Your task to perform on an android device: open app "Mercado Libre" Image 0: 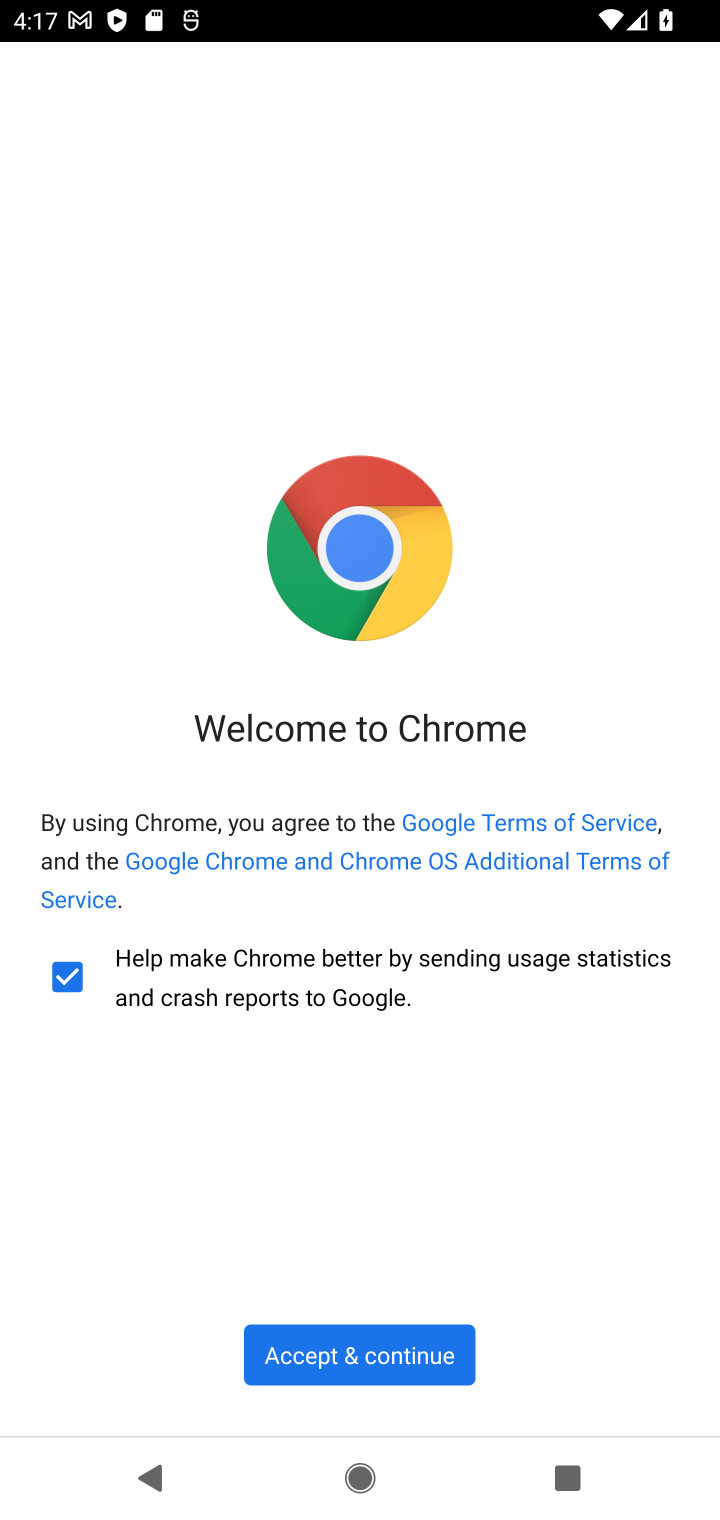
Step 0: press home button
Your task to perform on an android device: open app "Mercado Libre" Image 1: 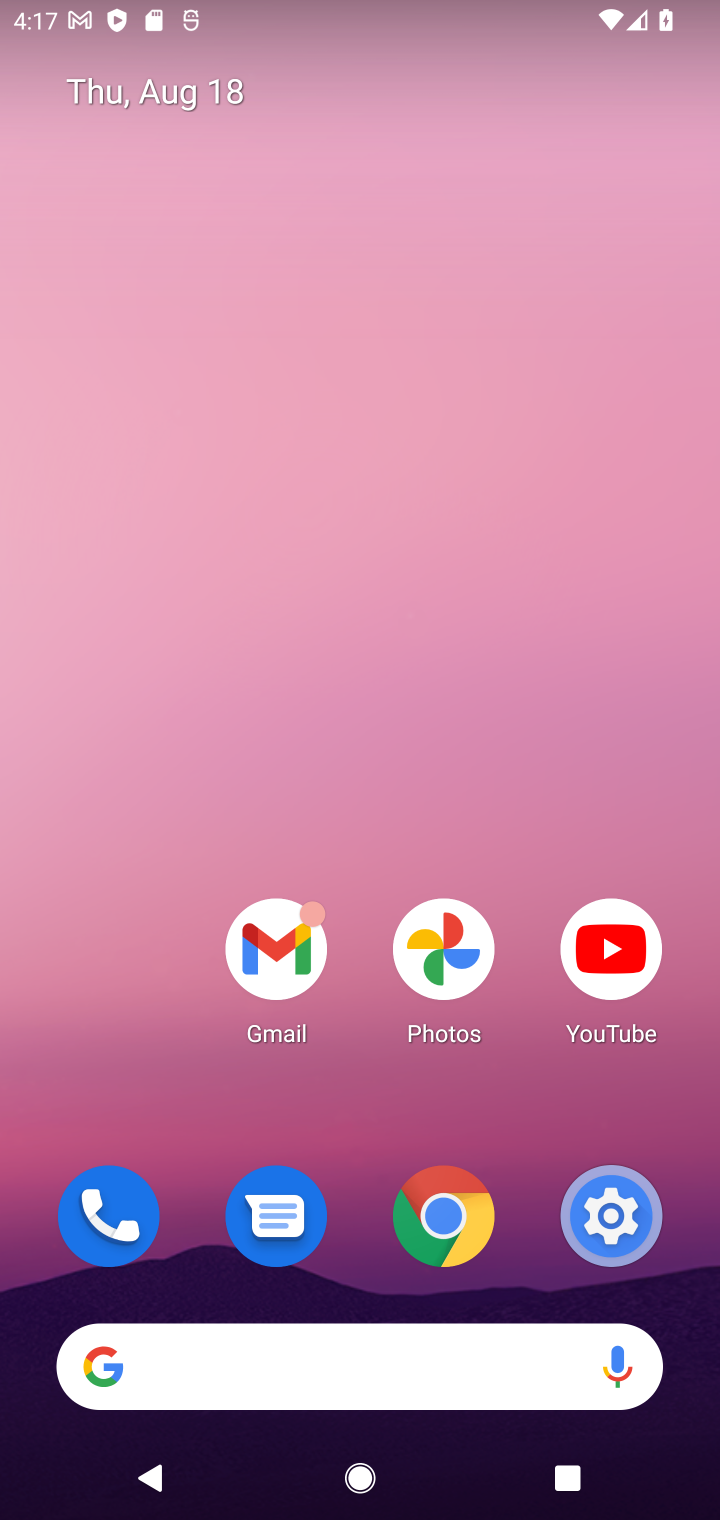
Step 1: drag from (529, 1130) to (488, 161)
Your task to perform on an android device: open app "Mercado Libre" Image 2: 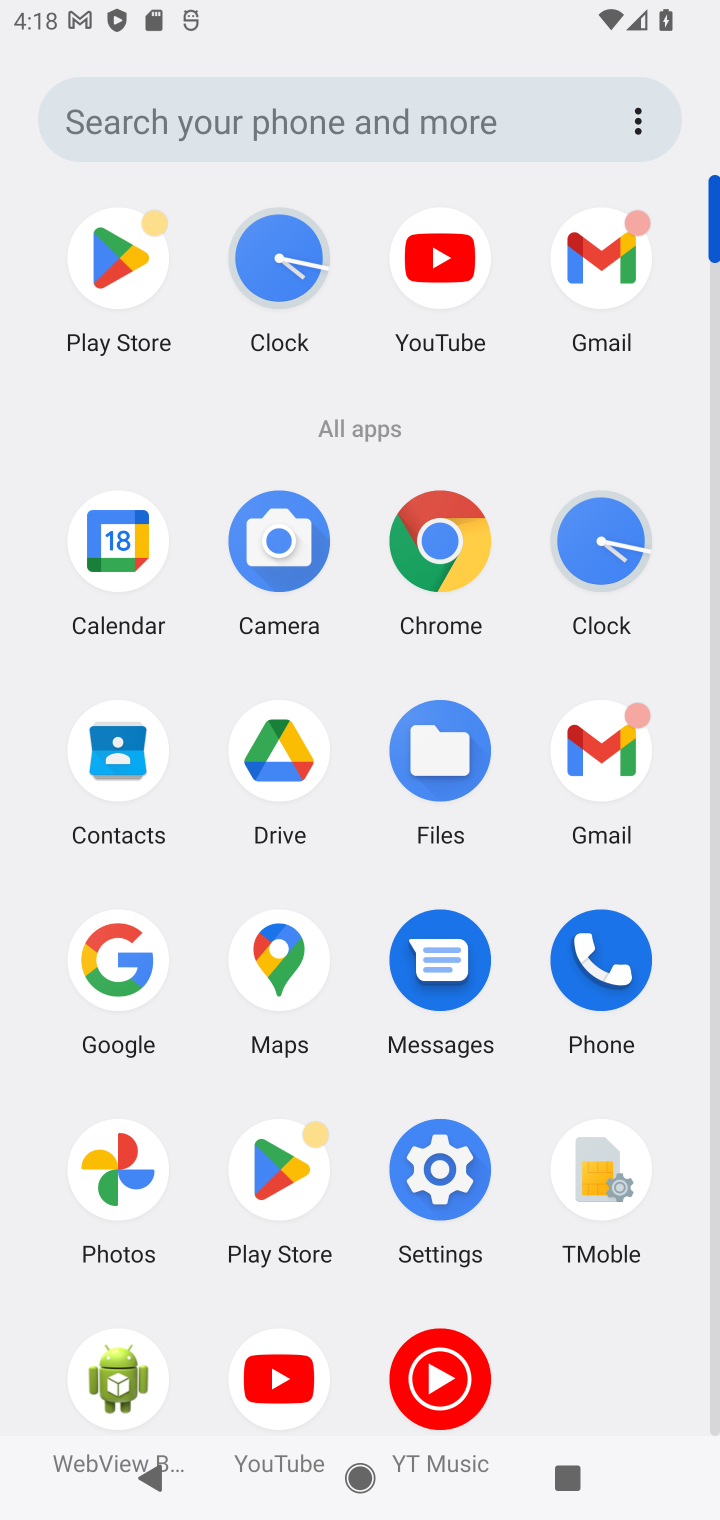
Step 2: click (285, 1173)
Your task to perform on an android device: open app "Mercado Libre" Image 3: 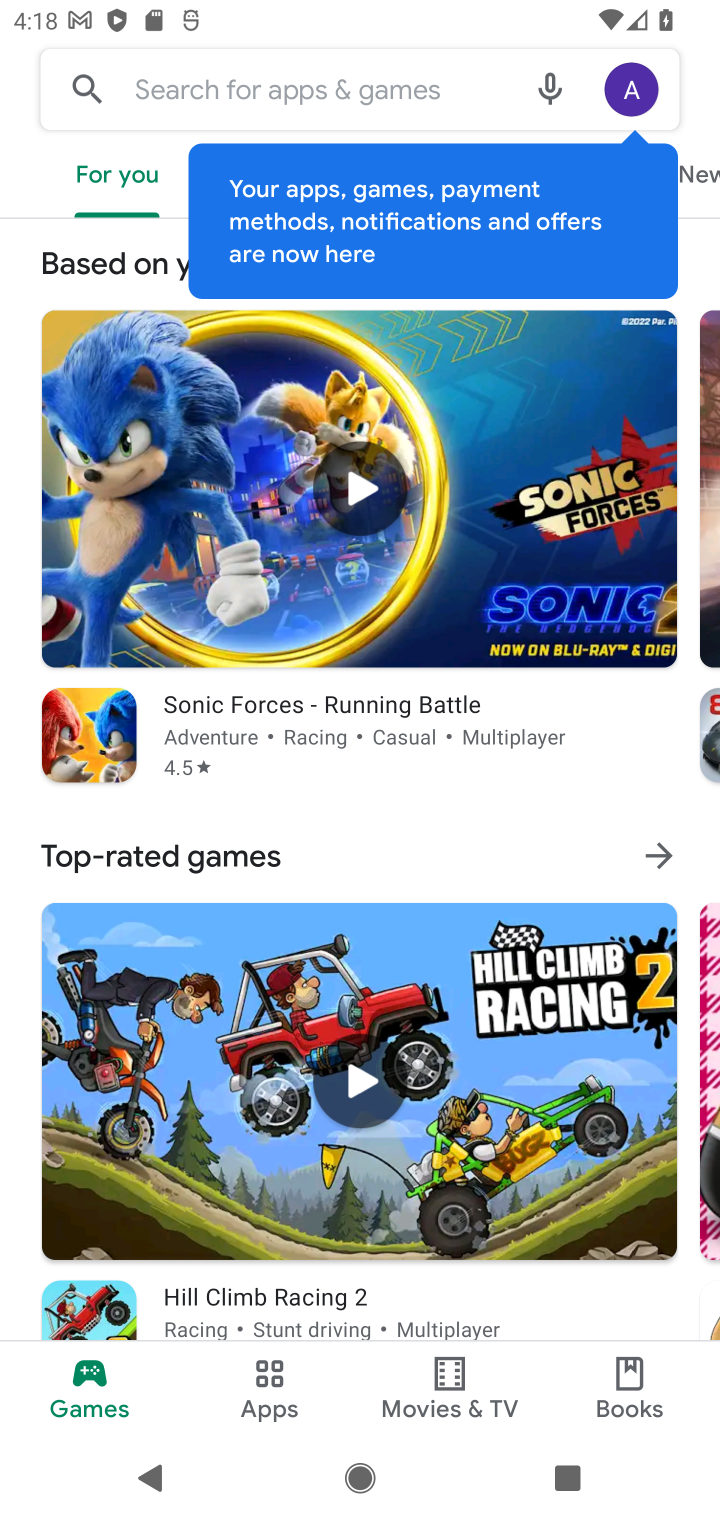
Step 3: click (247, 72)
Your task to perform on an android device: open app "Mercado Libre" Image 4: 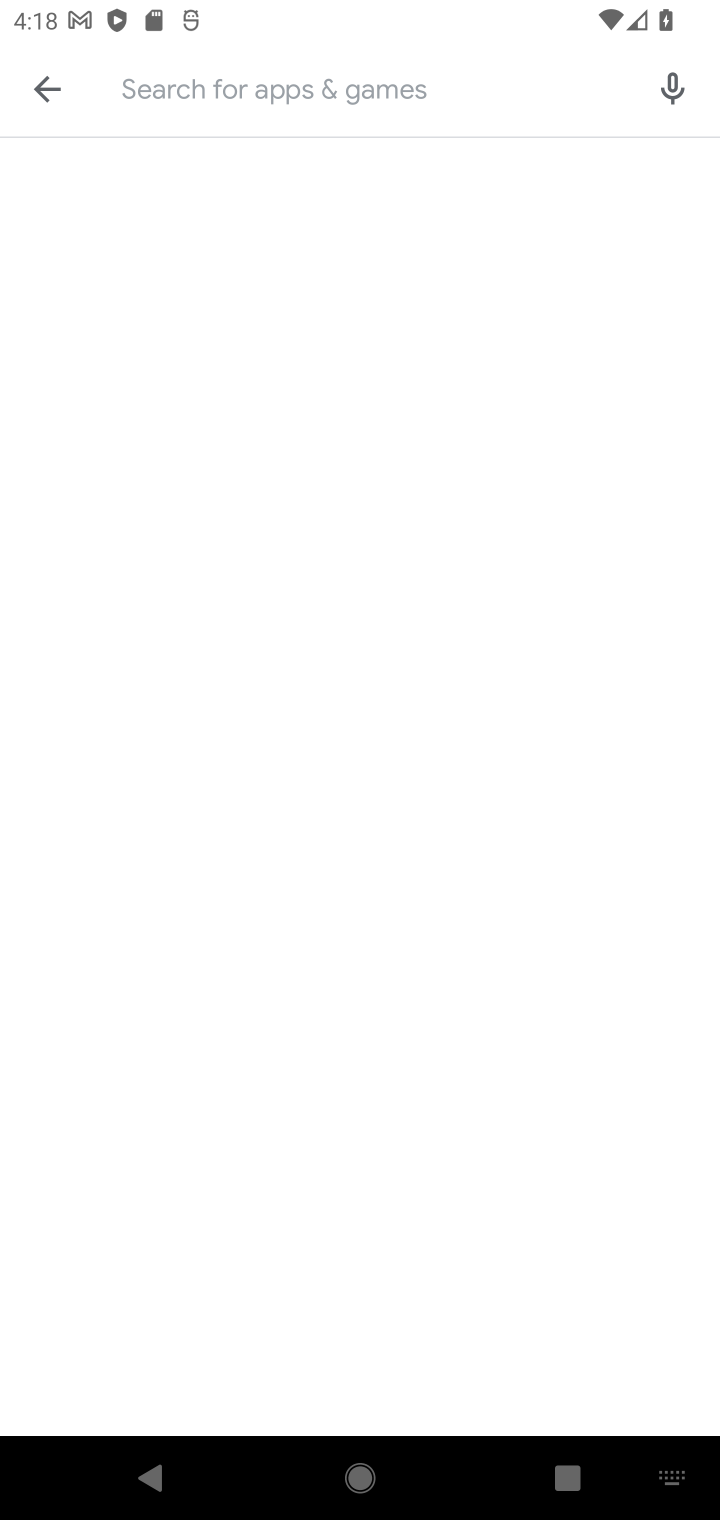
Step 4: type "Mercado Libre"
Your task to perform on an android device: open app "Mercado Libre" Image 5: 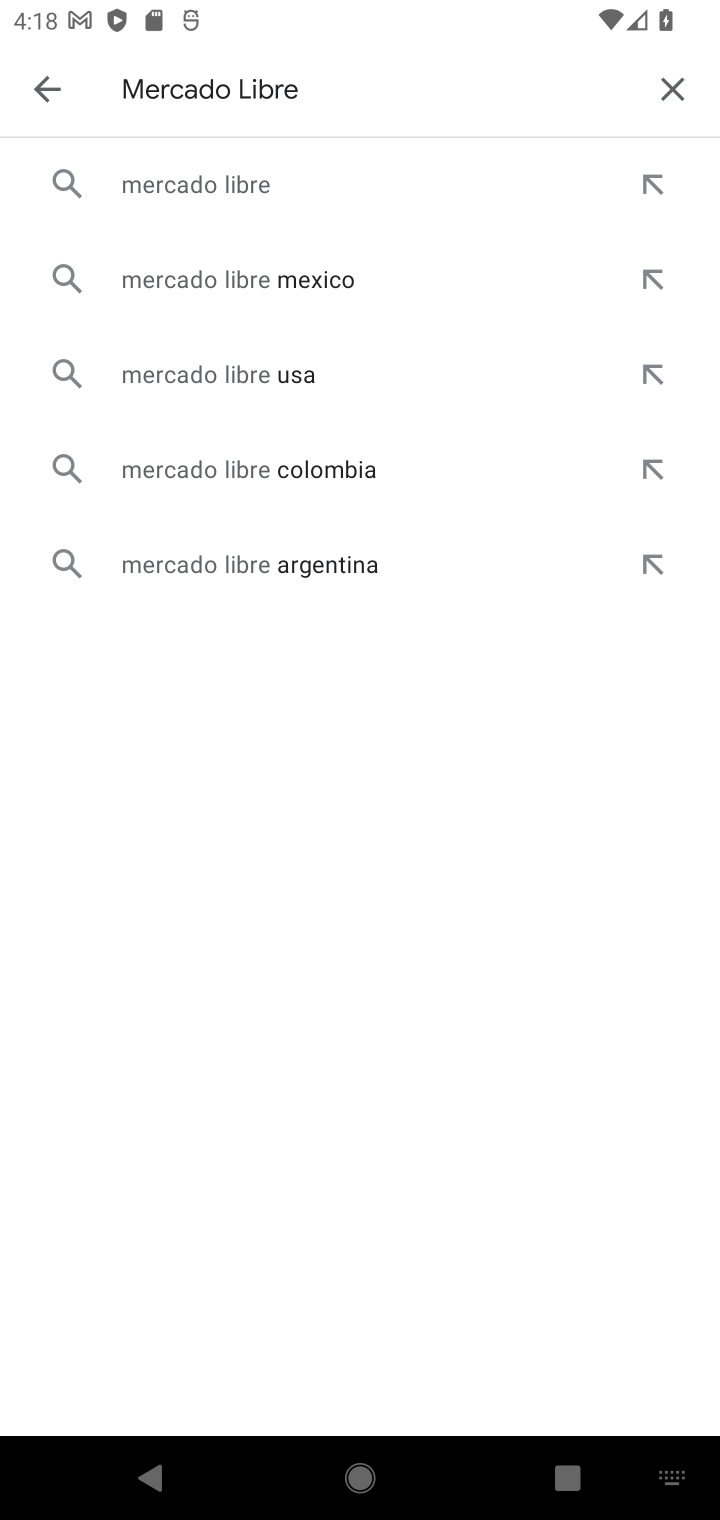
Step 5: click (182, 168)
Your task to perform on an android device: open app "Mercado Libre" Image 6: 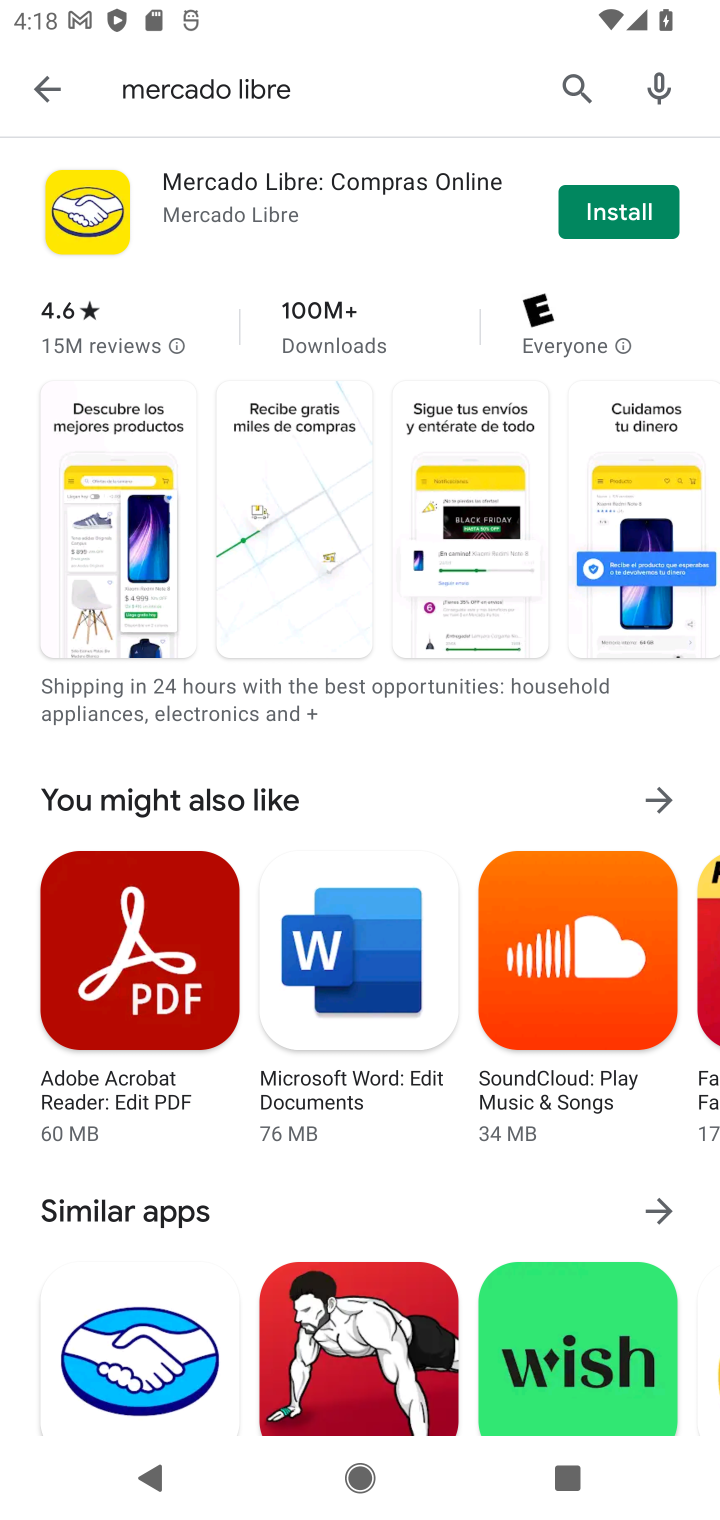
Step 6: task complete